Your task to perform on an android device: turn on data saver in the chrome app Image 0: 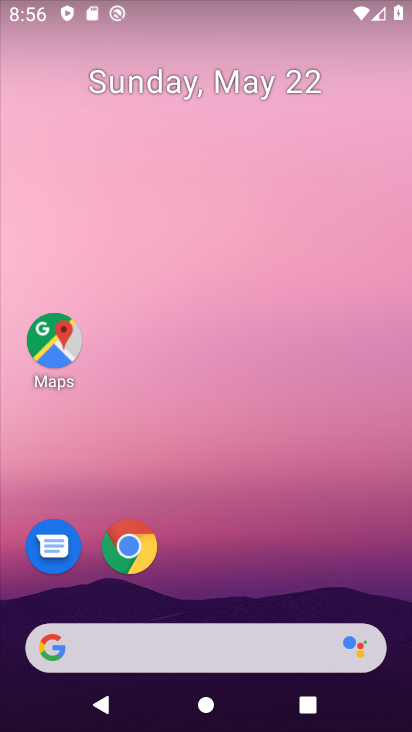
Step 0: click (101, 561)
Your task to perform on an android device: turn on data saver in the chrome app Image 1: 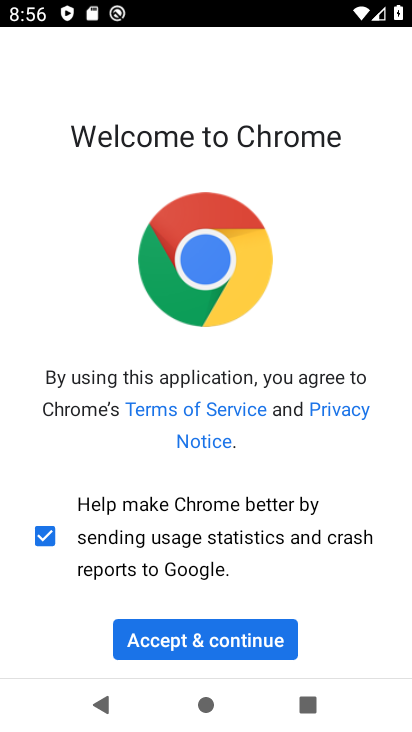
Step 1: click (201, 651)
Your task to perform on an android device: turn on data saver in the chrome app Image 2: 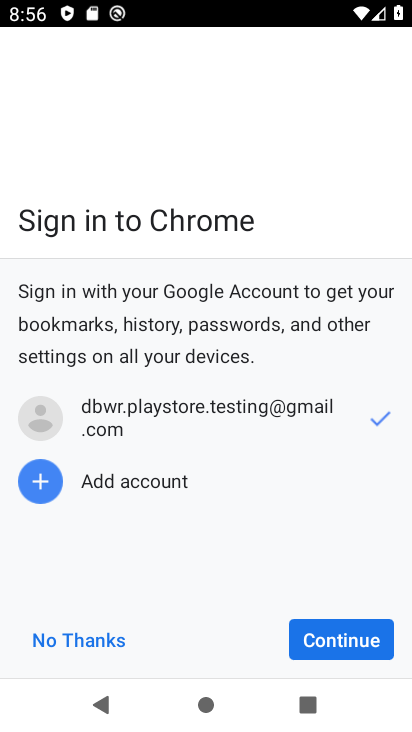
Step 2: click (318, 647)
Your task to perform on an android device: turn on data saver in the chrome app Image 3: 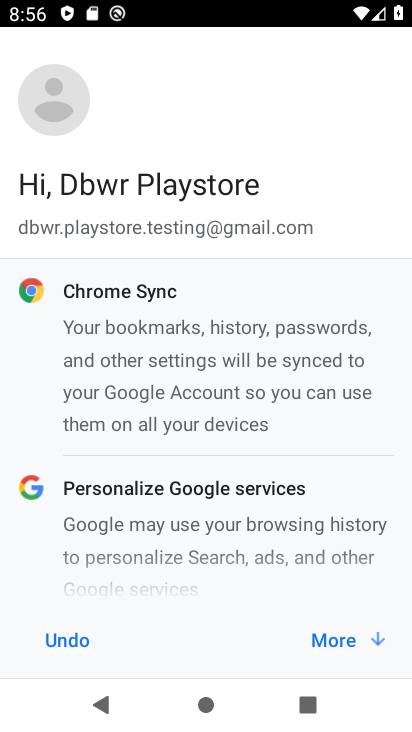
Step 3: click (325, 640)
Your task to perform on an android device: turn on data saver in the chrome app Image 4: 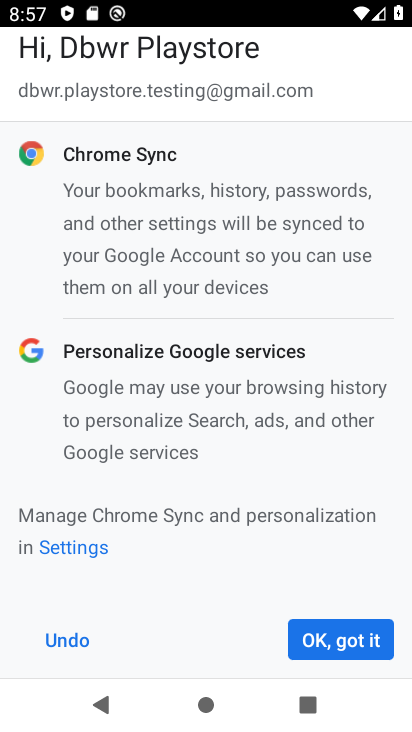
Step 4: click (323, 651)
Your task to perform on an android device: turn on data saver in the chrome app Image 5: 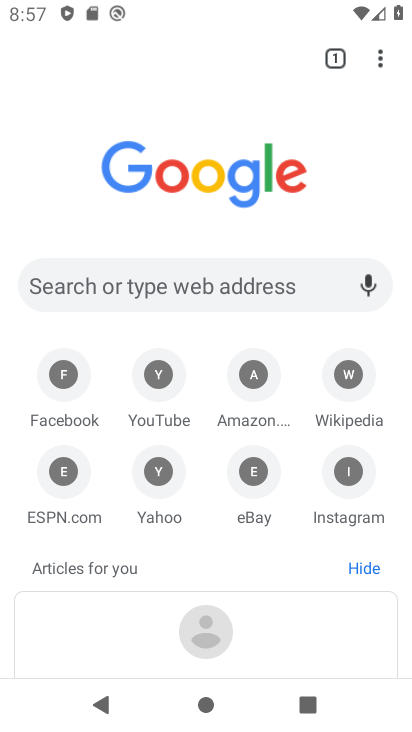
Step 5: drag from (382, 53) to (212, 480)
Your task to perform on an android device: turn on data saver in the chrome app Image 6: 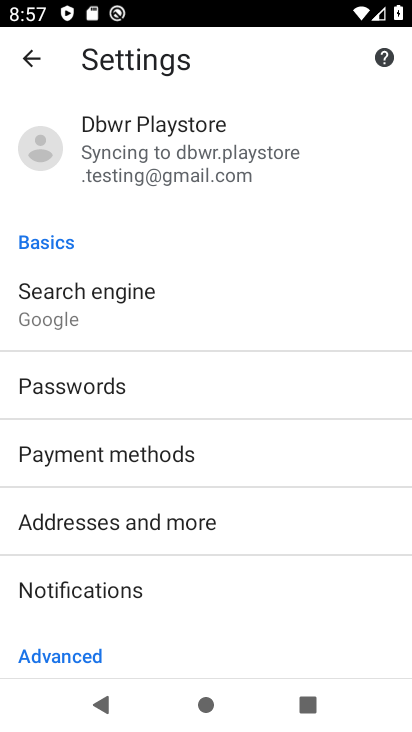
Step 6: drag from (189, 603) to (252, 148)
Your task to perform on an android device: turn on data saver in the chrome app Image 7: 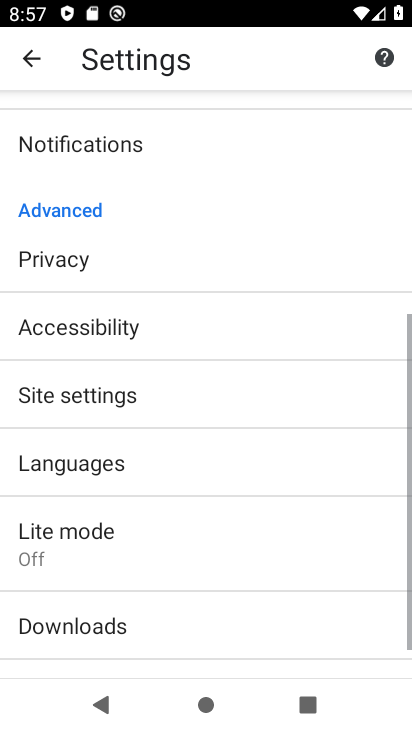
Step 7: drag from (119, 595) to (193, 280)
Your task to perform on an android device: turn on data saver in the chrome app Image 8: 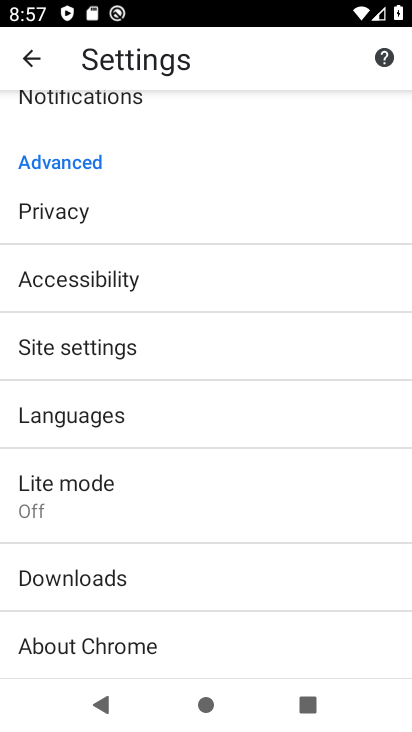
Step 8: click (97, 494)
Your task to perform on an android device: turn on data saver in the chrome app Image 9: 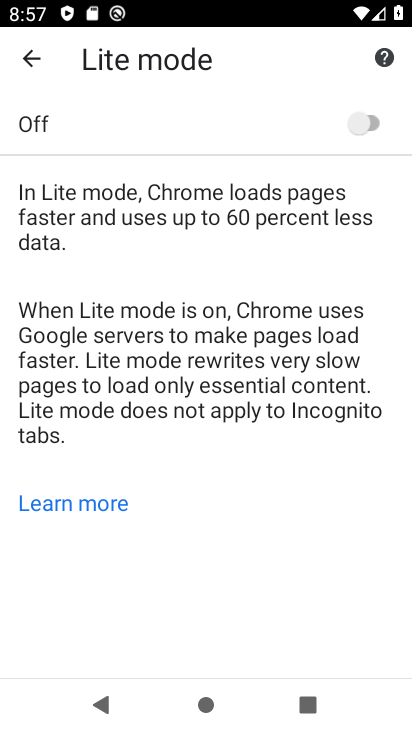
Step 9: click (360, 122)
Your task to perform on an android device: turn on data saver in the chrome app Image 10: 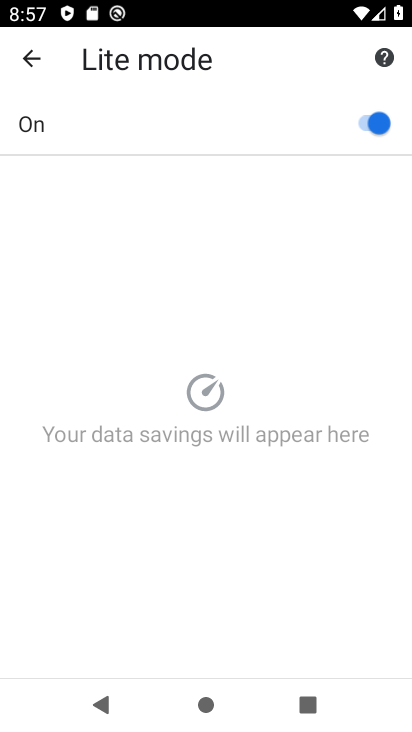
Step 10: task complete